Your task to perform on an android device: What's on my calendar tomorrow? Image 0: 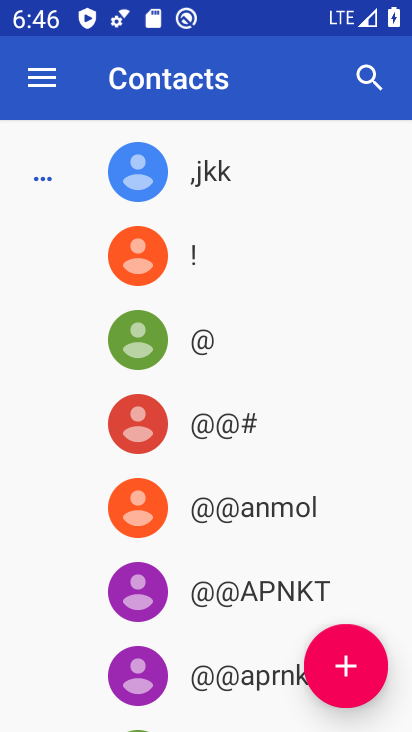
Step 0: press home button
Your task to perform on an android device: What's on my calendar tomorrow? Image 1: 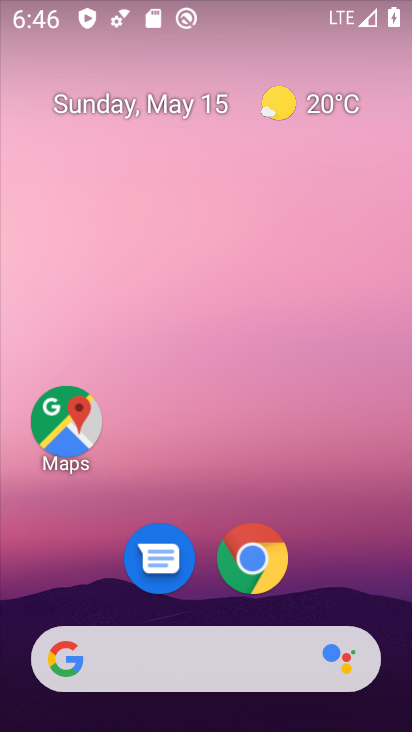
Step 1: drag from (268, 426) to (180, 53)
Your task to perform on an android device: What's on my calendar tomorrow? Image 2: 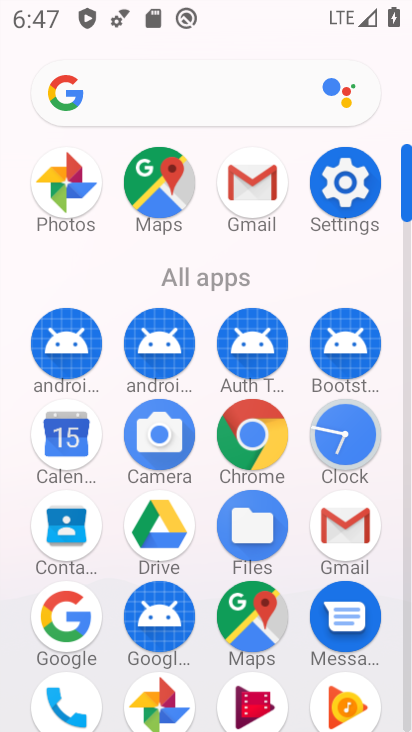
Step 2: click (61, 427)
Your task to perform on an android device: What's on my calendar tomorrow? Image 3: 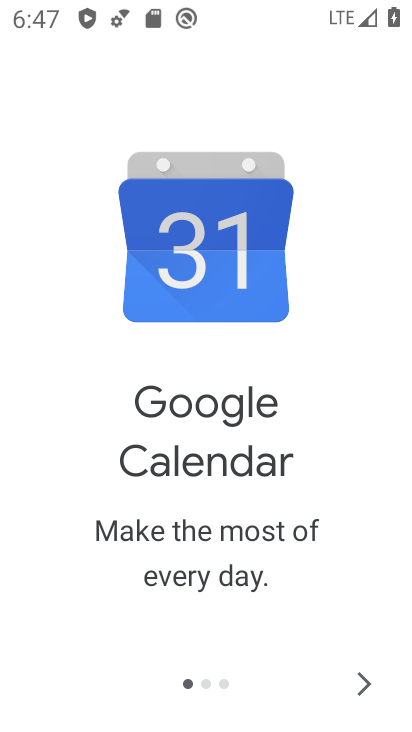
Step 3: click (372, 683)
Your task to perform on an android device: What's on my calendar tomorrow? Image 4: 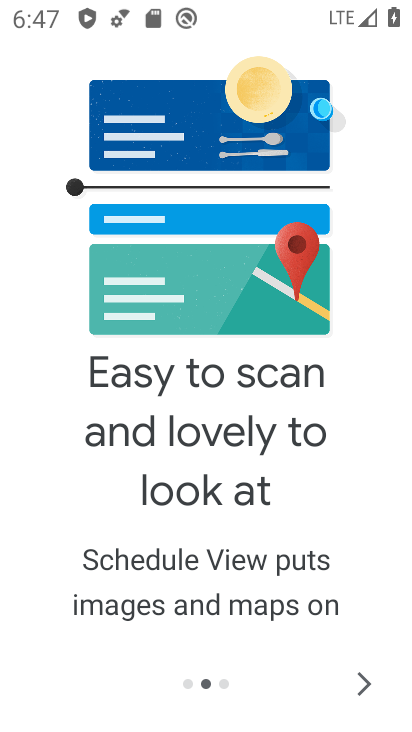
Step 4: click (372, 683)
Your task to perform on an android device: What's on my calendar tomorrow? Image 5: 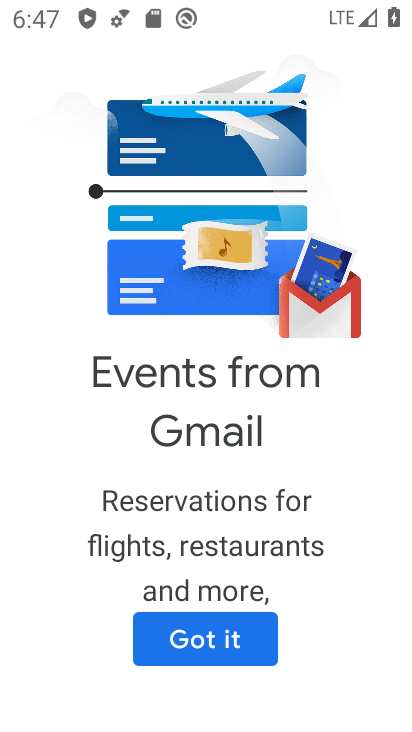
Step 5: click (211, 637)
Your task to perform on an android device: What's on my calendar tomorrow? Image 6: 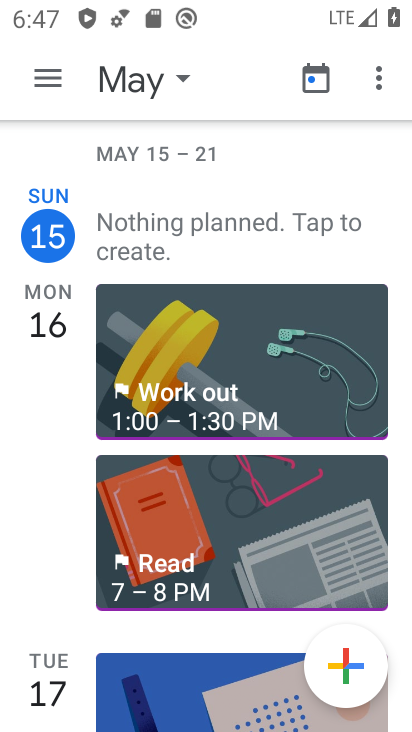
Step 6: click (51, 71)
Your task to perform on an android device: What's on my calendar tomorrow? Image 7: 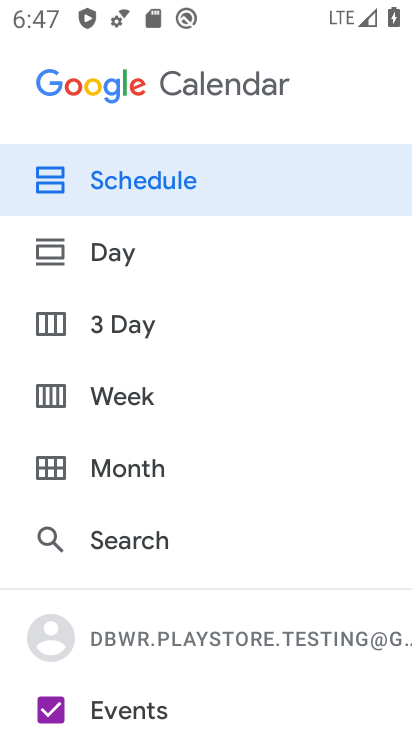
Step 7: click (114, 246)
Your task to perform on an android device: What's on my calendar tomorrow? Image 8: 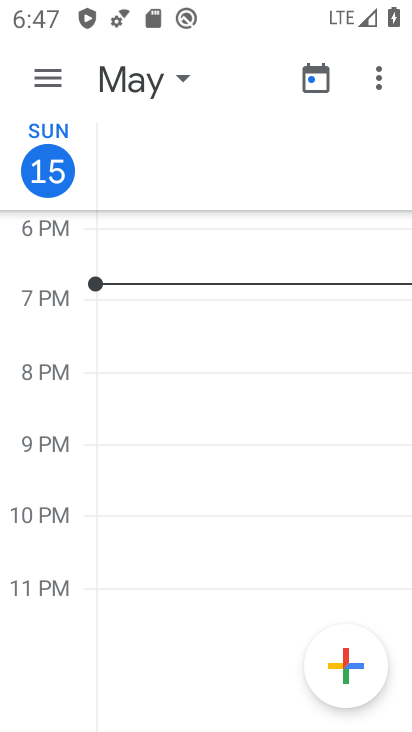
Step 8: click (183, 69)
Your task to perform on an android device: What's on my calendar tomorrow? Image 9: 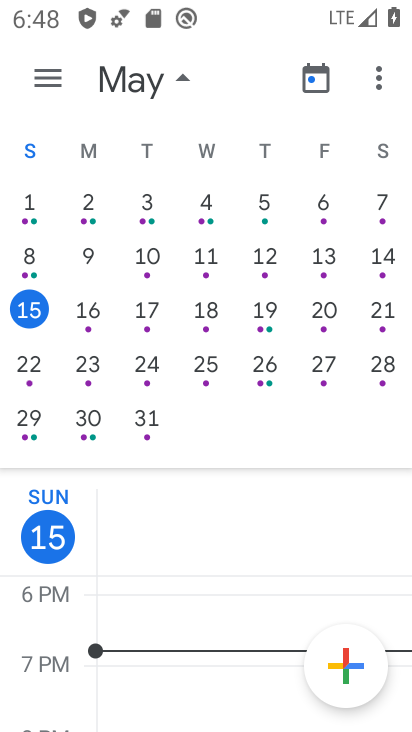
Step 9: click (86, 307)
Your task to perform on an android device: What's on my calendar tomorrow? Image 10: 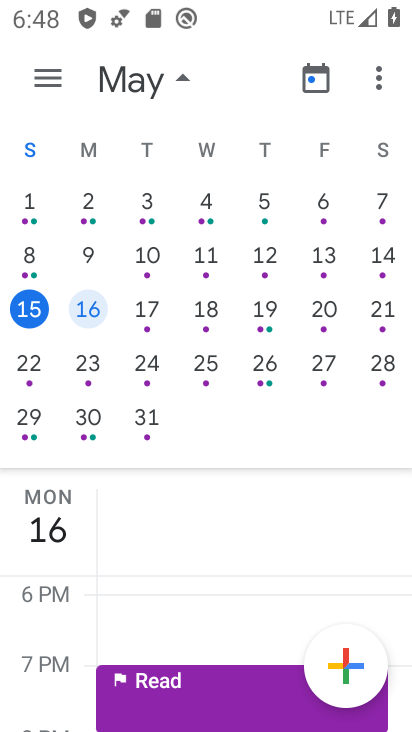
Step 10: click (88, 308)
Your task to perform on an android device: What's on my calendar tomorrow? Image 11: 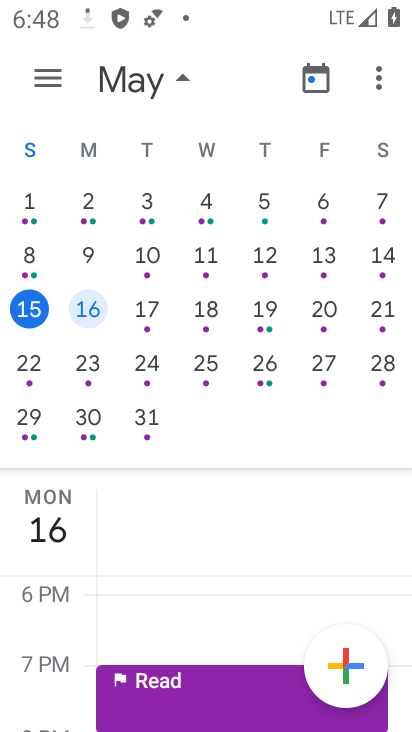
Step 11: task complete